Your task to perform on an android device: Open notification settings Image 0: 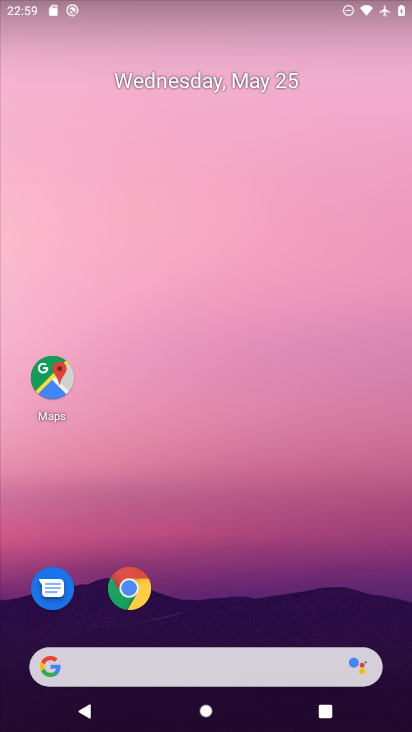
Step 0: drag from (297, 520) to (258, 132)
Your task to perform on an android device: Open notification settings Image 1: 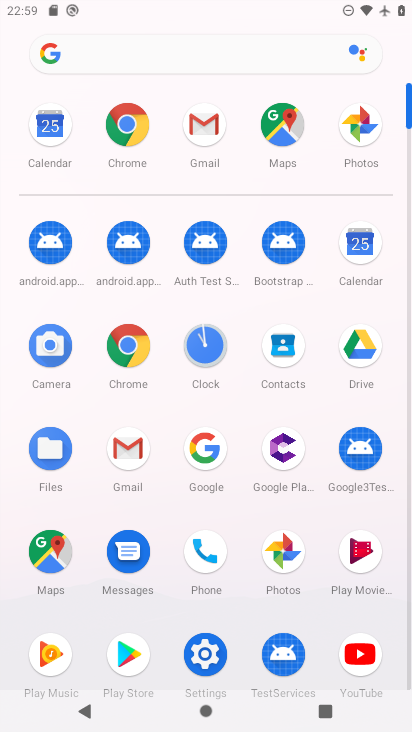
Step 1: click (201, 649)
Your task to perform on an android device: Open notification settings Image 2: 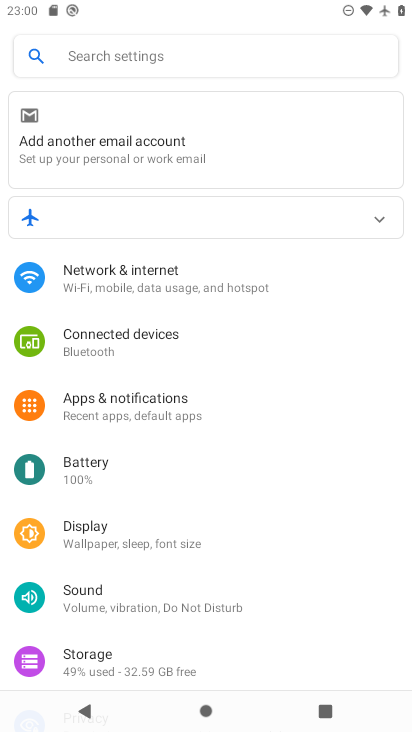
Step 2: click (140, 405)
Your task to perform on an android device: Open notification settings Image 3: 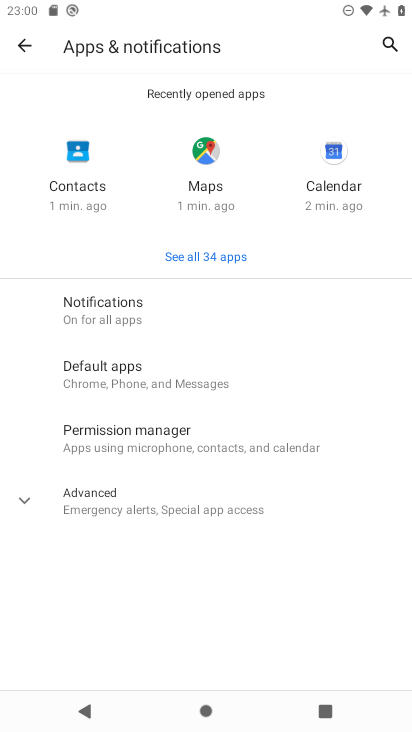
Step 3: click (100, 305)
Your task to perform on an android device: Open notification settings Image 4: 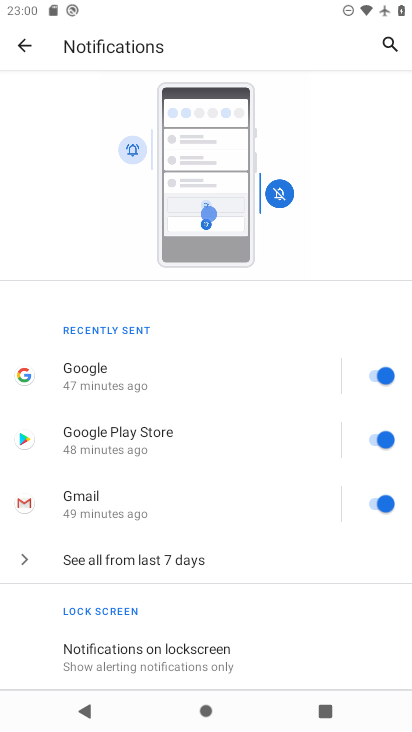
Step 4: task complete